Your task to perform on an android device: move a message to another label in the gmail app Image 0: 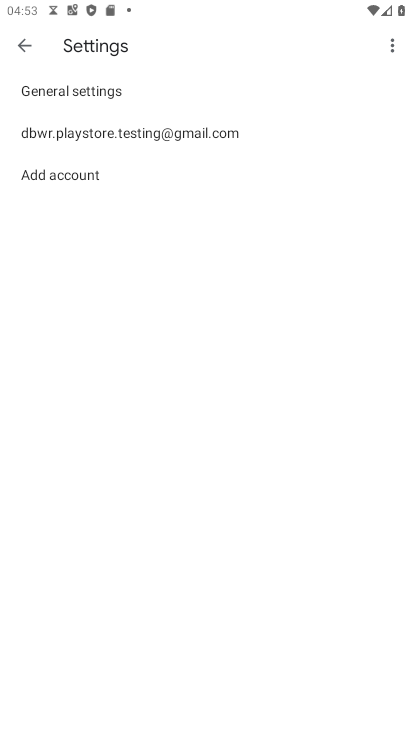
Step 0: press home button
Your task to perform on an android device: move a message to another label in the gmail app Image 1: 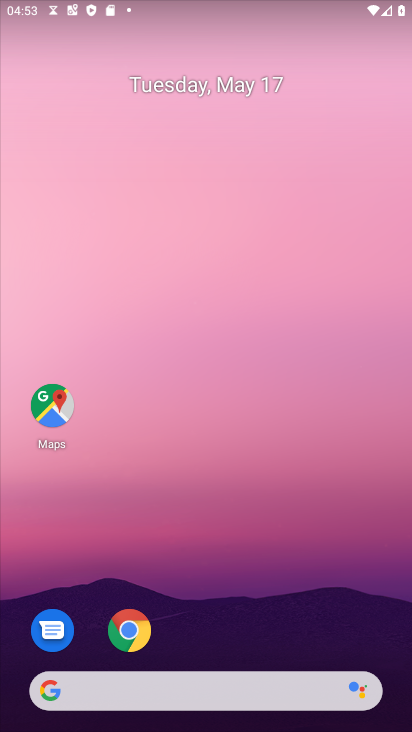
Step 1: drag from (272, 593) to (277, 69)
Your task to perform on an android device: move a message to another label in the gmail app Image 2: 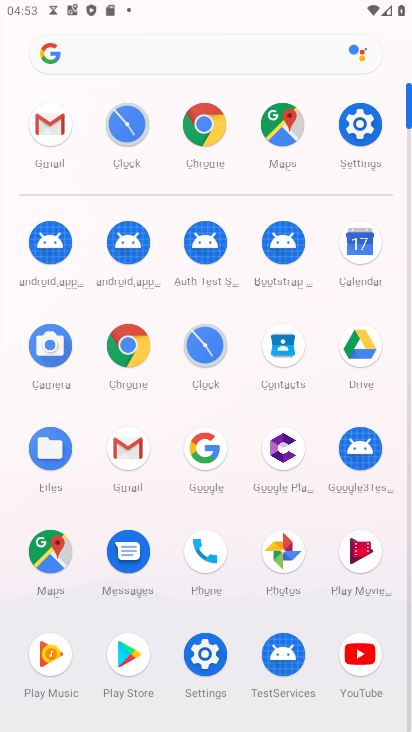
Step 2: click (63, 126)
Your task to perform on an android device: move a message to another label in the gmail app Image 3: 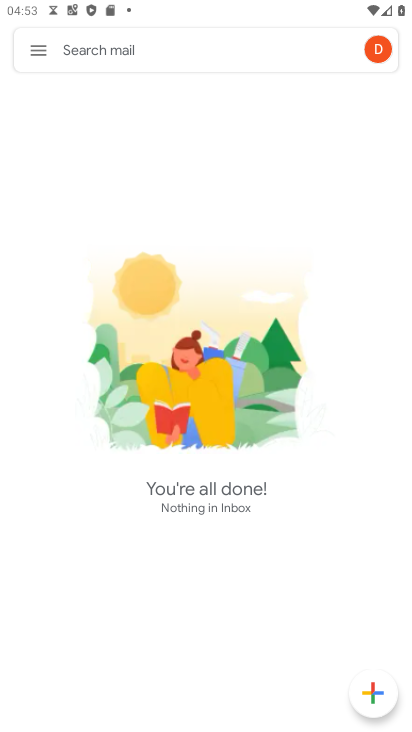
Step 3: task complete